Your task to perform on an android device: change alarm snooze length Image 0: 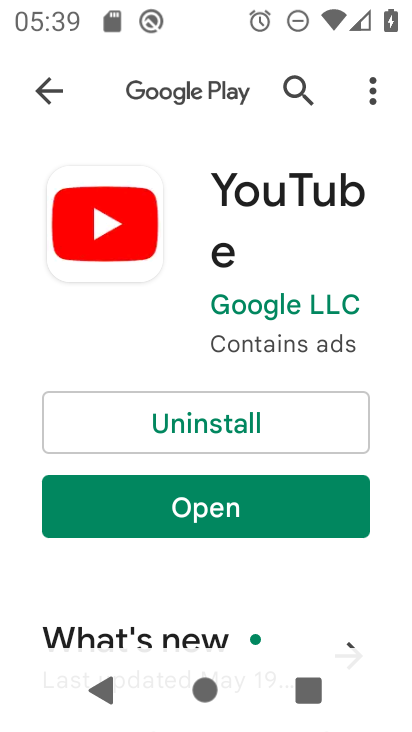
Step 0: press home button
Your task to perform on an android device: change alarm snooze length Image 1: 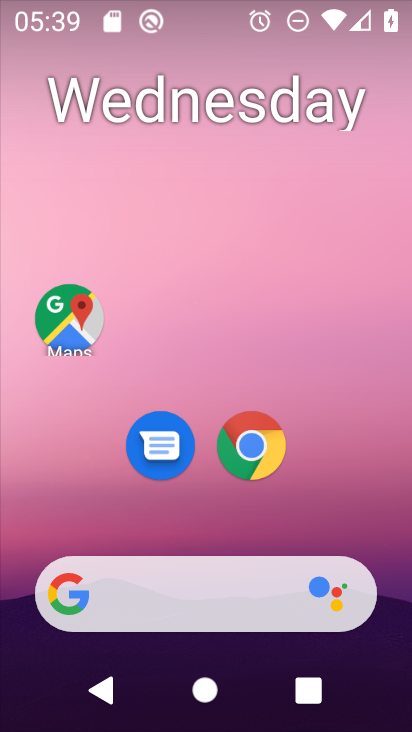
Step 1: drag from (165, 176) to (171, 56)
Your task to perform on an android device: change alarm snooze length Image 2: 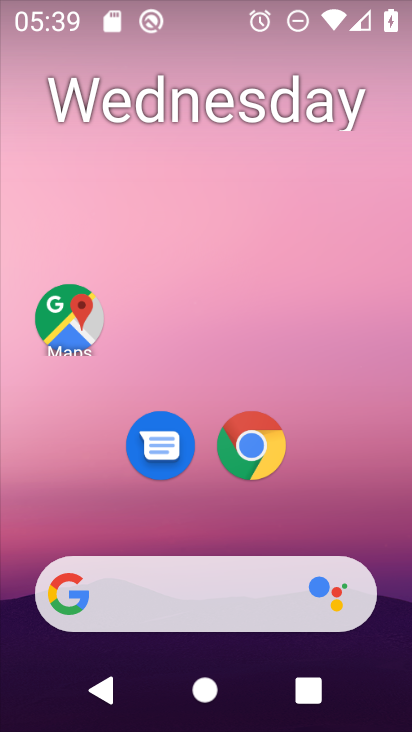
Step 2: drag from (192, 524) to (207, 170)
Your task to perform on an android device: change alarm snooze length Image 3: 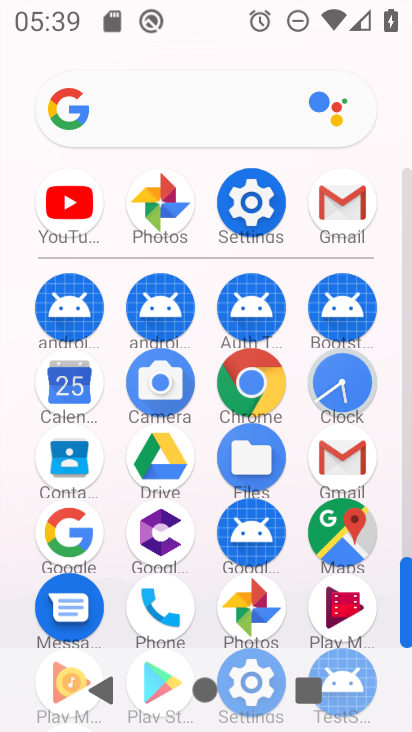
Step 3: click (342, 400)
Your task to perform on an android device: change alarm snooze length Image 4: 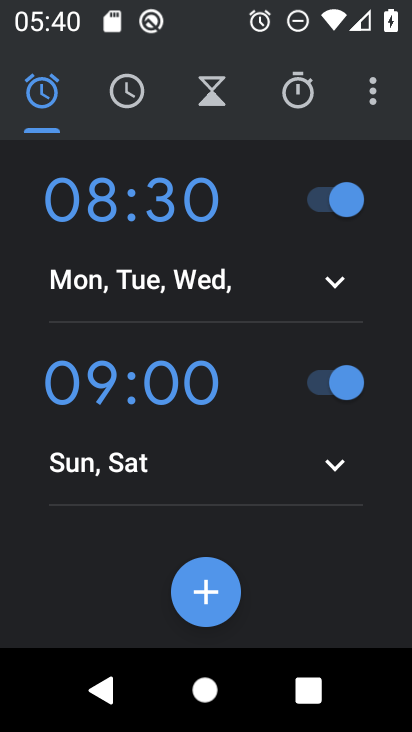
Step 4: click (378, 89)
Your task to perform on an android device: change alarm snooze length Image 5: 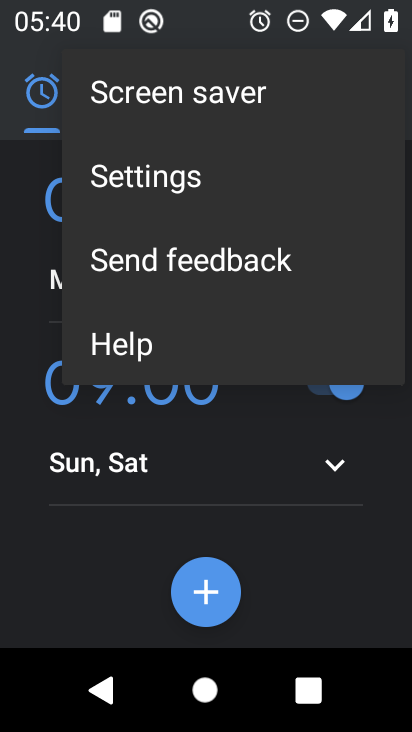
Step 5: click (239, 175)
Your task to perform on an android device: change alarm snooze length Image 6: 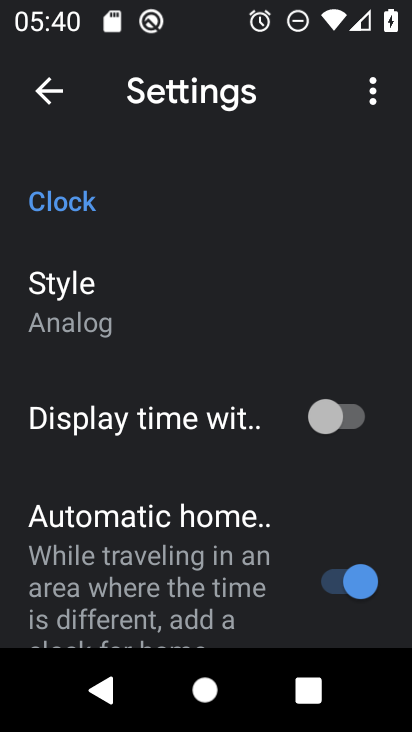
Step 6: drag from (147, 573) to (228, 256)
Your task to perform on an android device: change alarm snooze length Image 7: 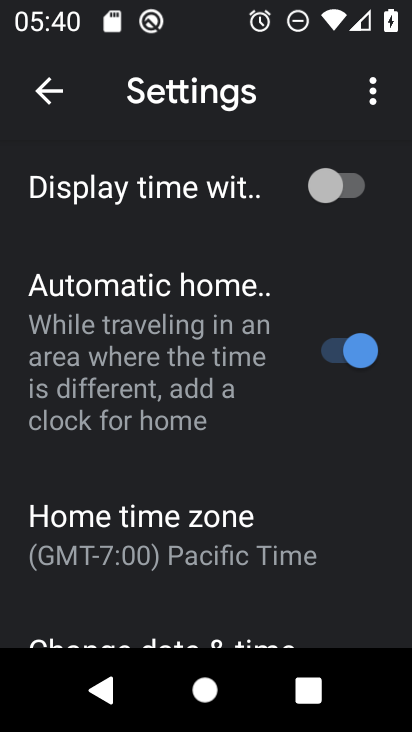
Step 7: drag from (126, 577) to (182, 246)
Your task to perform on an android device: change alarm snooze length Image 8: 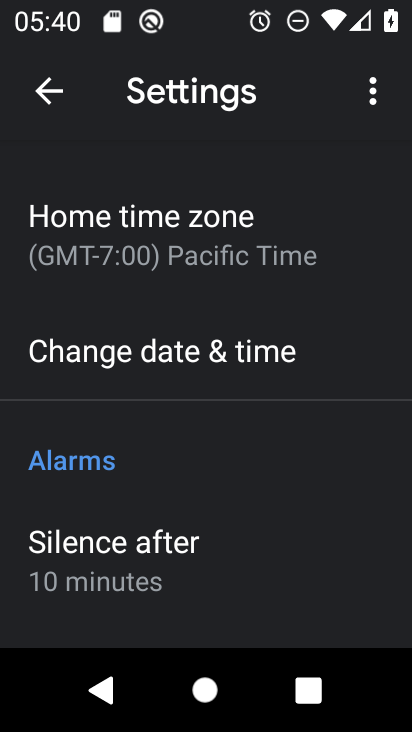
Step 8: drag from (127, 478) to (194, 108)
Your task to perform on an android device: change alarm snooze length Image 9: 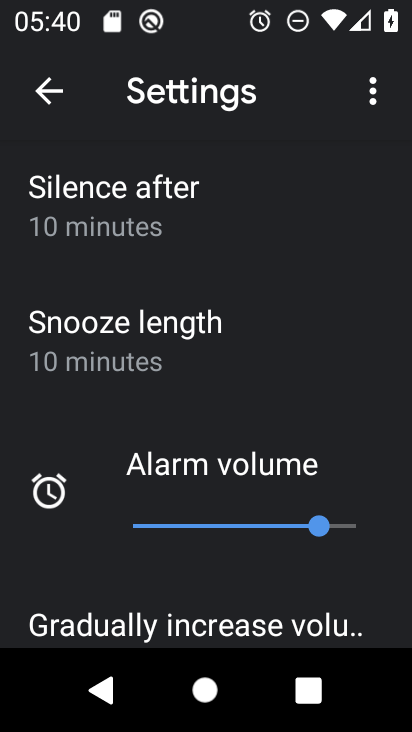
Step 9: click (206, 333)
Your task to perform on an android device: change alarm snooze length Image 10: 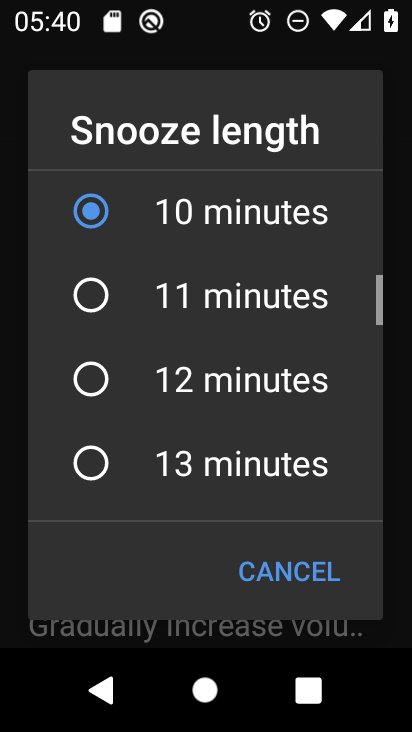
Step 10: click (197, 462)
Your task to perform on an android device: change alarm snooze length Image 11: 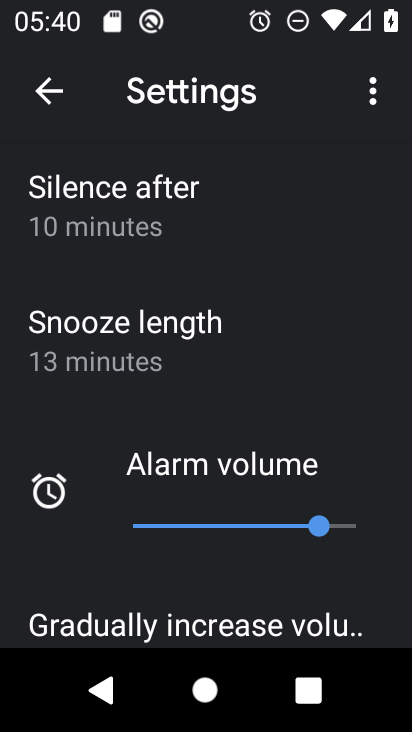
Step 11: task complete